Your task to perform on an android device: open app "Microsoft Outlook" (install if not already installed) Image 0: 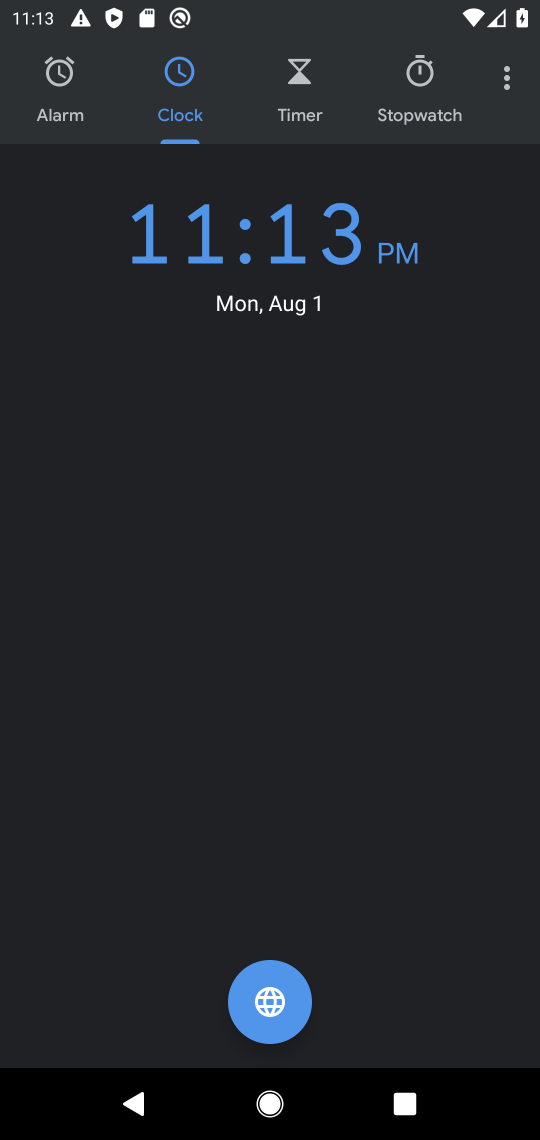
Step 0: press home button
Your task to perform on an android device: open app "Microsoft Outlook" (install if not already installed) Image 1: 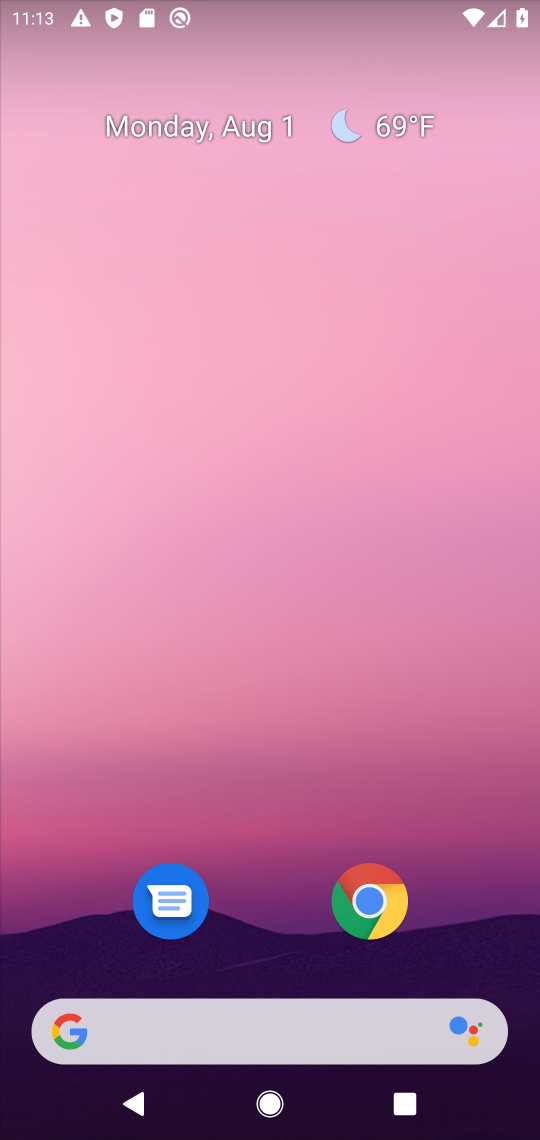
Step 1: drag from (385, 829) to (369, 1)
Your task to perform on an android device: open app "Microsoft Outlook" (install if not already installed) Image 2: 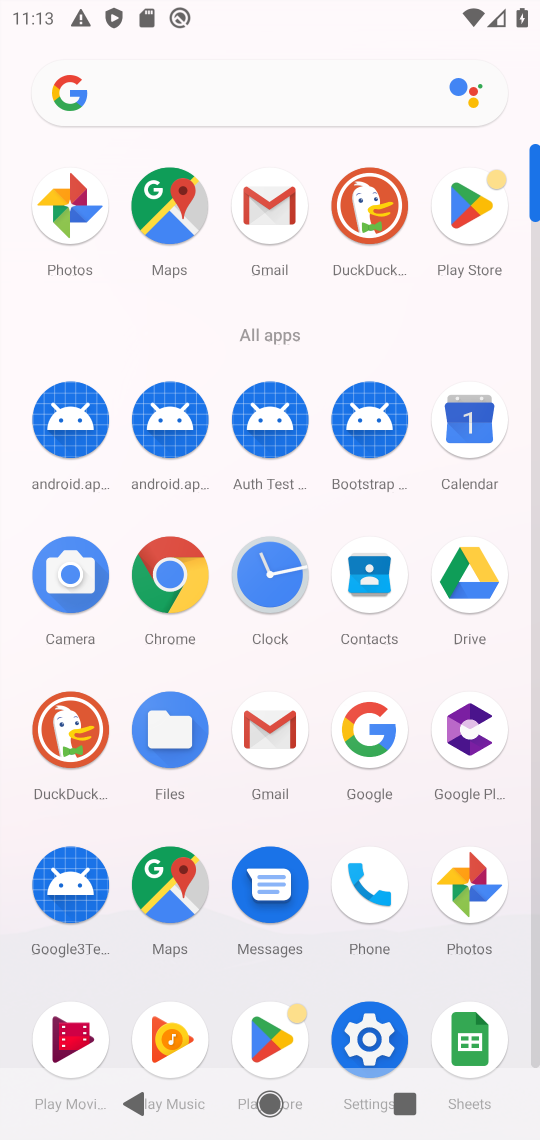
Step 2: click (444, 201)
Your task to perform on an android device: open app "Microsoft Outlook" (install if not already installed) Image 3: 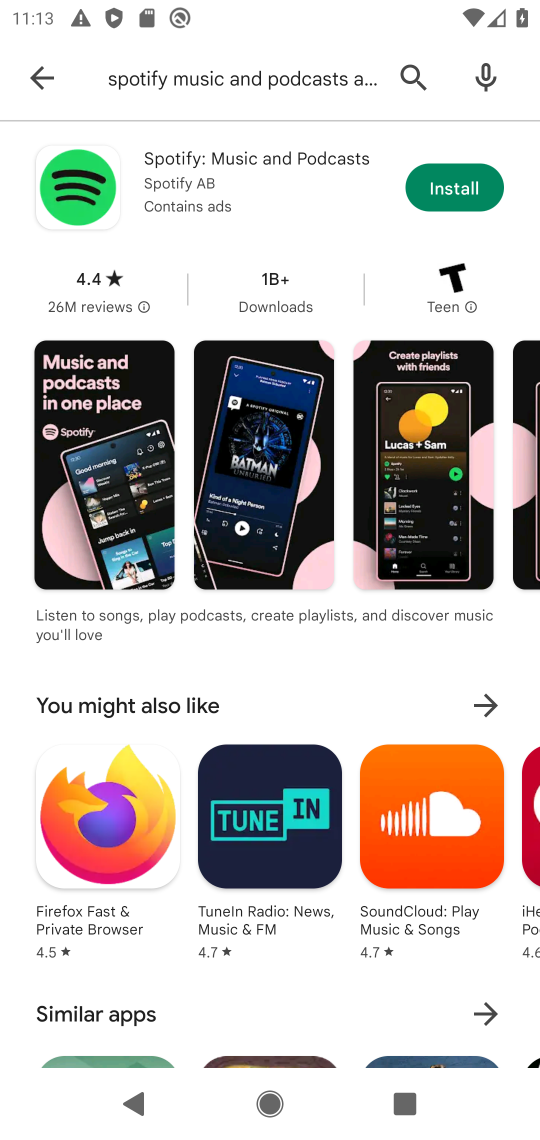
Step 3: click (39, 64)
Your task to perform on an android device: open app "Microsoft Outlook" (install if not already installed) Image 4: 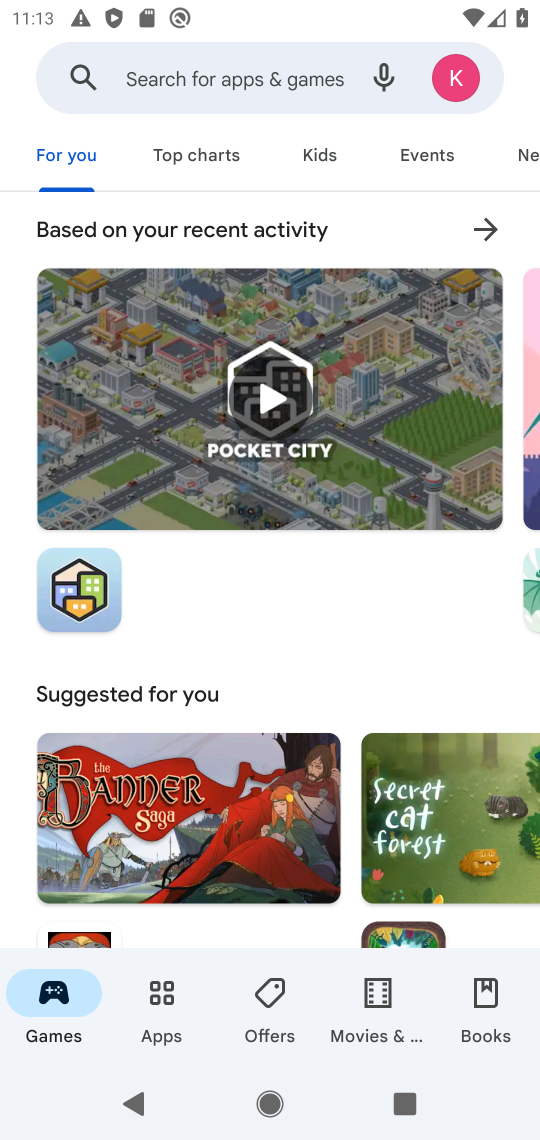
Step 4: click (205, 82)
Your task to perform on an android device: open app "Microsoft Outlook" (install if not already installed) Image 5: 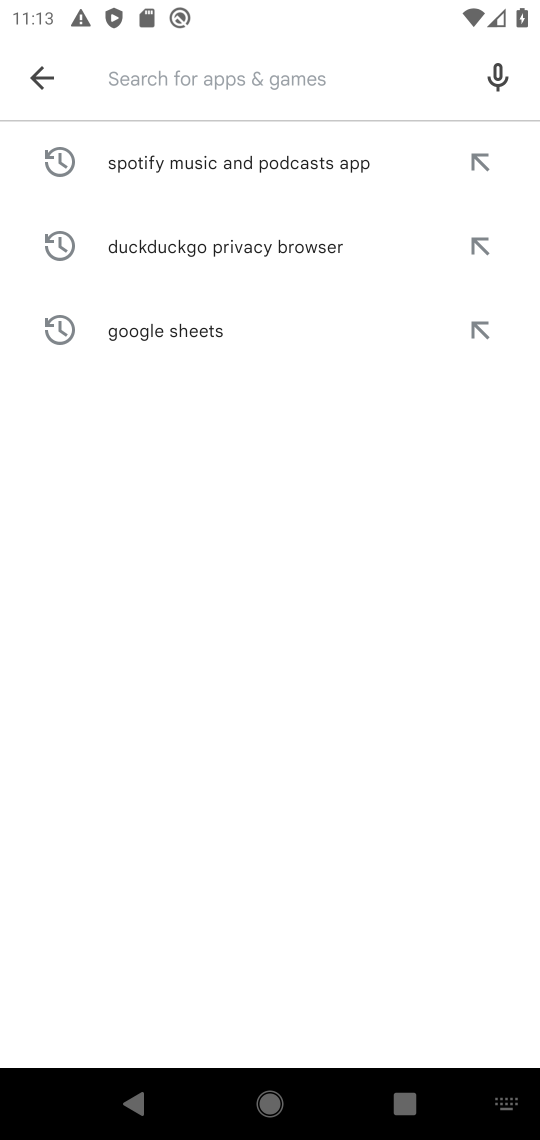
Step 5: type "Microsoft Outlook"
Your task to perform on an android device: open app "Microsoft Outlook" (install if not already installed) Image 6: 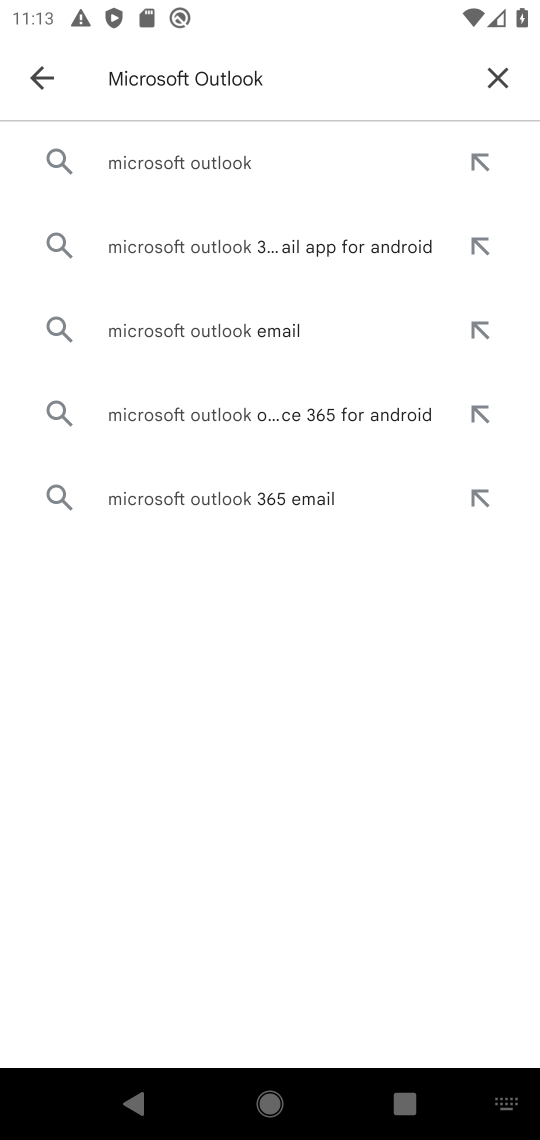
Step 6: click (208, 154)
Your task to perform on an android device: open app "Microsoft Outlook" (install if not already installed) Image 7: 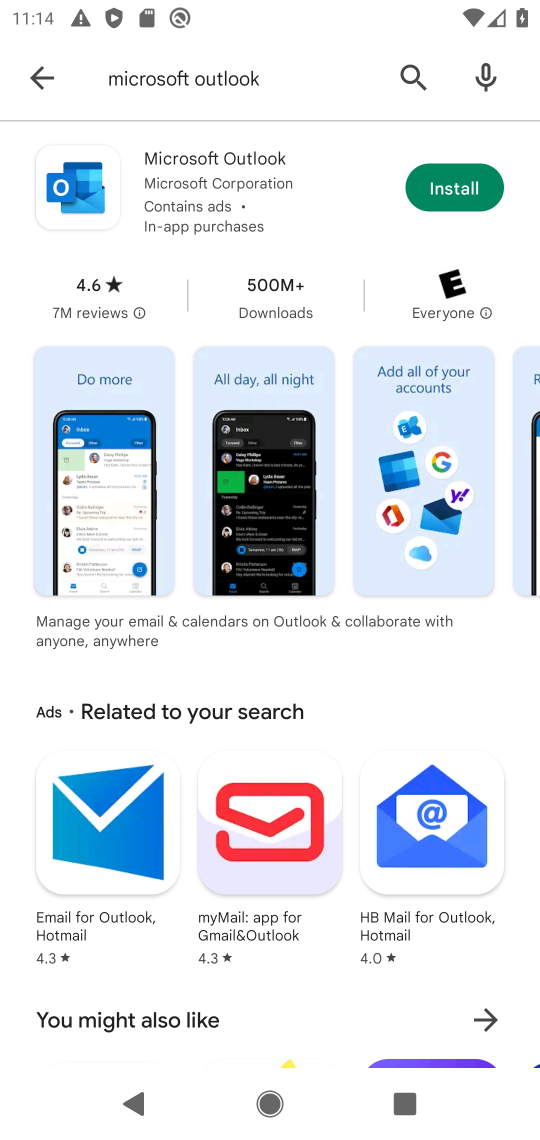
Step 7: click (432, 180)
Your task to perform on an android device: open app "Microsoft Outlook" (install if not already installed) Image 8: 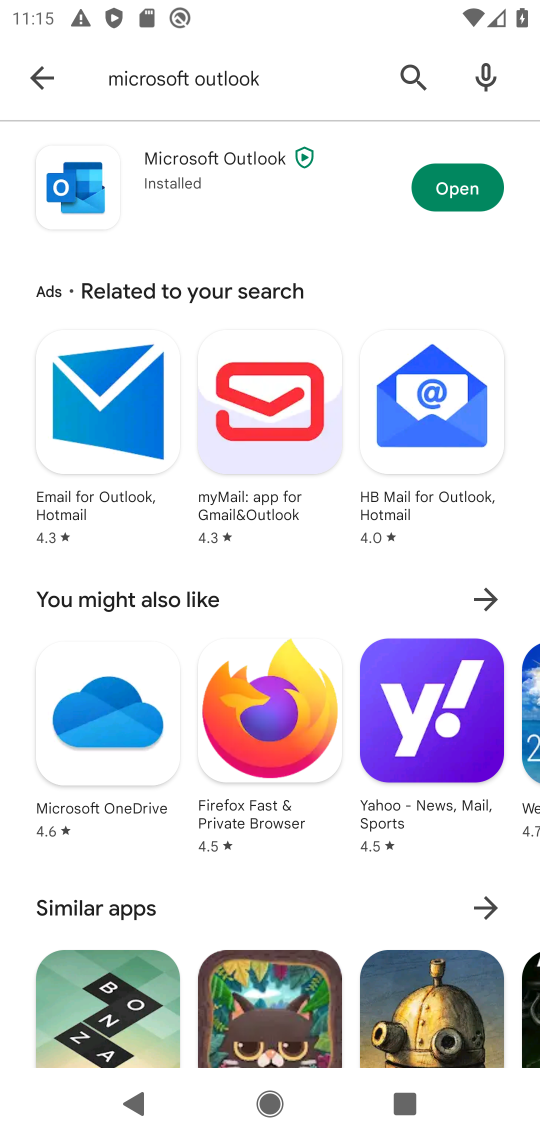
Step 8: click (454, 201)
Your task to perform on an android device: open app "Microsoft Outlook" (install if not already installed) Image 9: 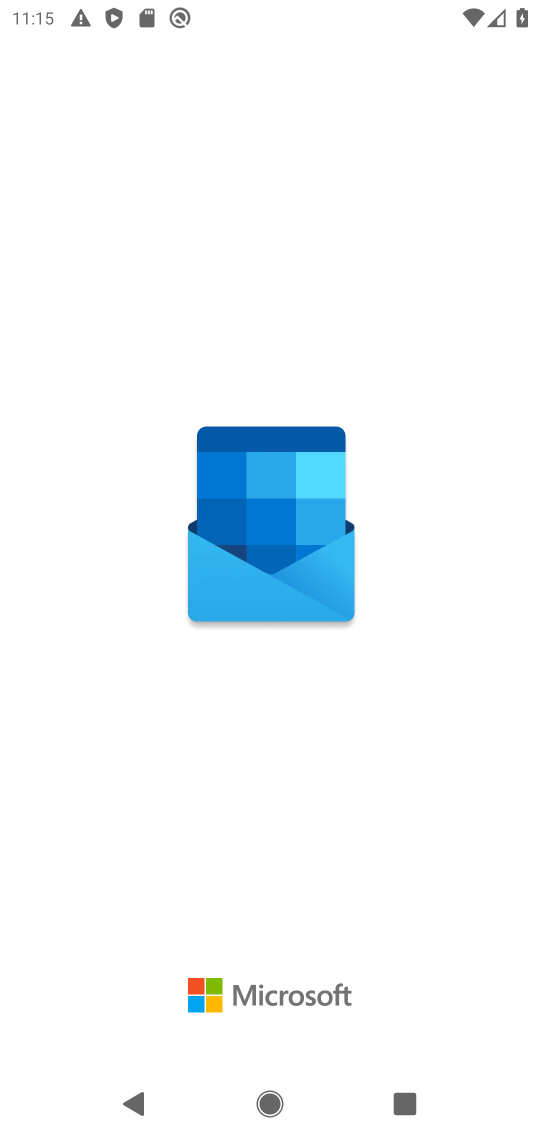
Step 9: task complete